Your task to perform on an android device: change text size in settings app Image 0: 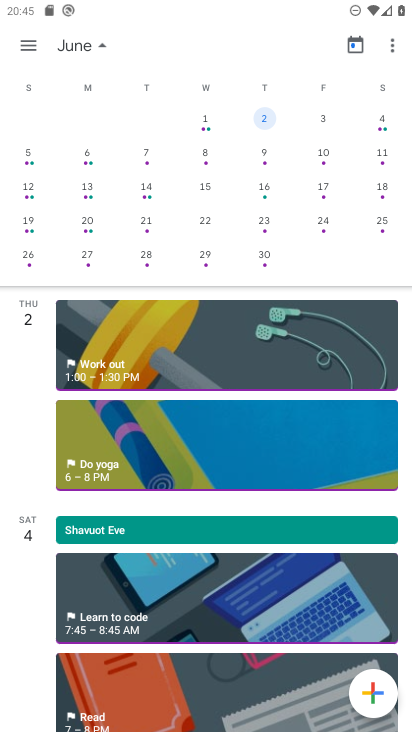
Step 0: press home button
Your task to perform on an android device: change text size in settings app Image 1: 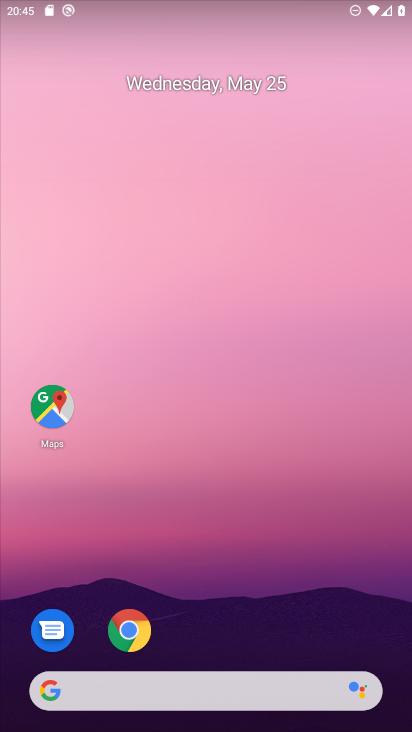
Step 1: drag from (223, 579) to (274, 80)
Your task to perform on an android device: change text size in settings app Image 2: 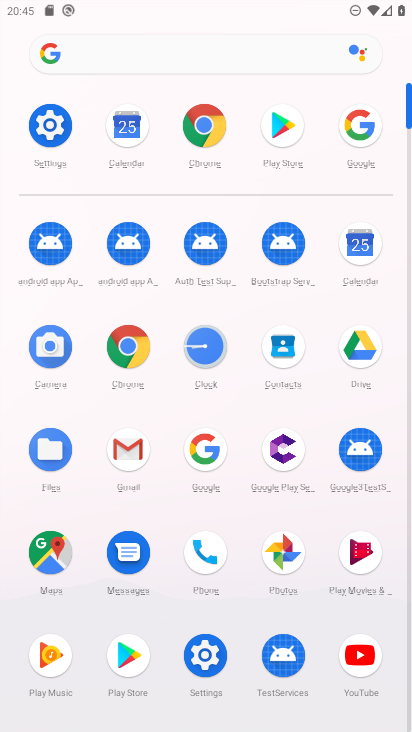
Step 2: click (54, 124)
Your task to perform on an android device: change text size in settings app Image 3: 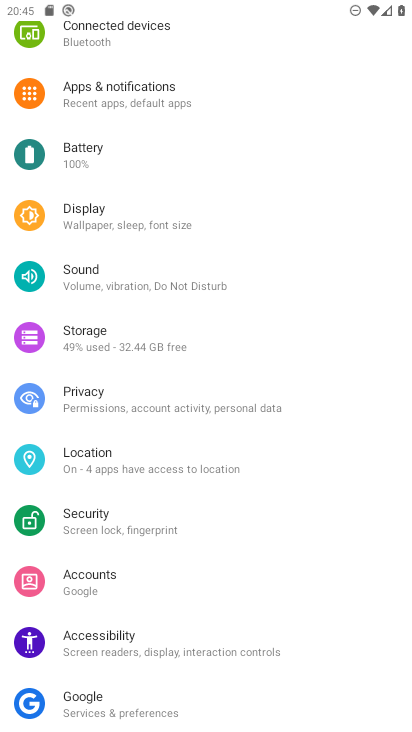
Step 3: click (124, 221)
Your task to perform on an android device: change text size in settings app Image 4: 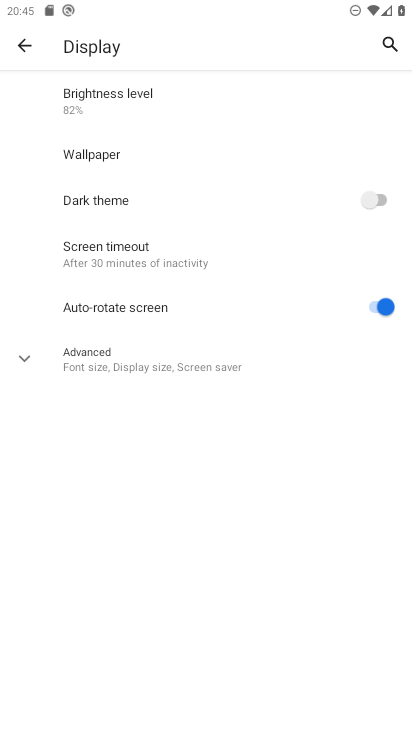
Step 4: click (134, 365)
Your task to perform on an android device: change text size in settings app Image 5: 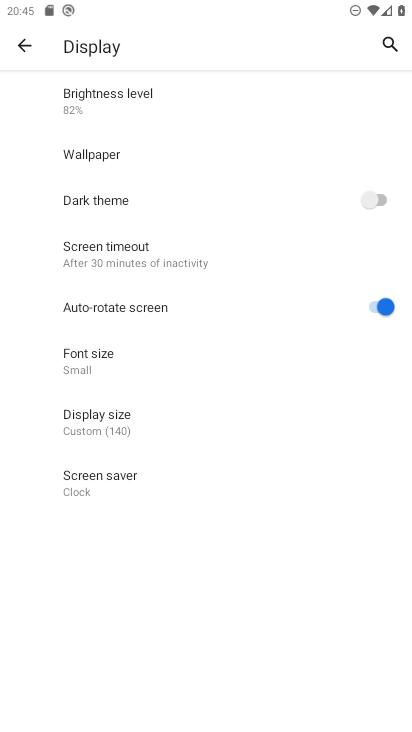
Step 5: click (116, 349)
Your task to perform on an android device: change text size in settings app Image 6: 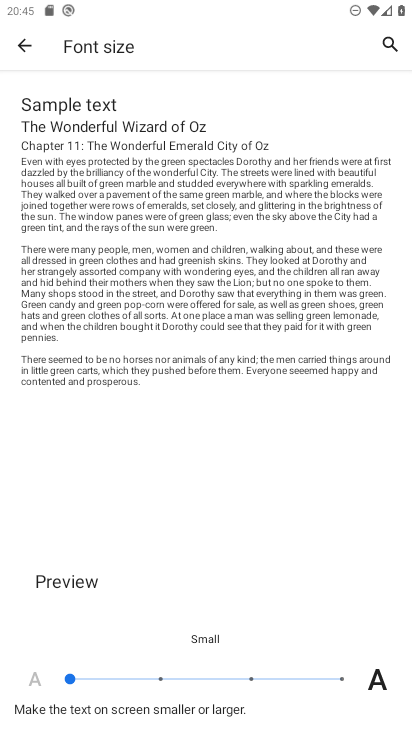
Step 6: task complete